Your task to perform on an android device: What's on my calendar tomorrow? Image 0: 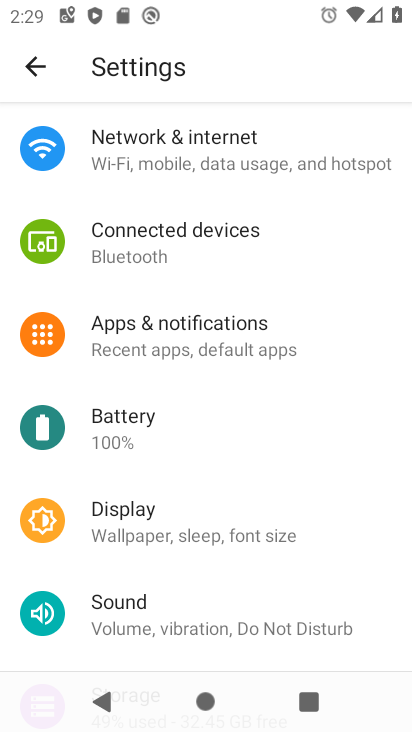
Step 0: press home button
Your task to perform on an android device: What's on my calendar tomorrow? Image 1: 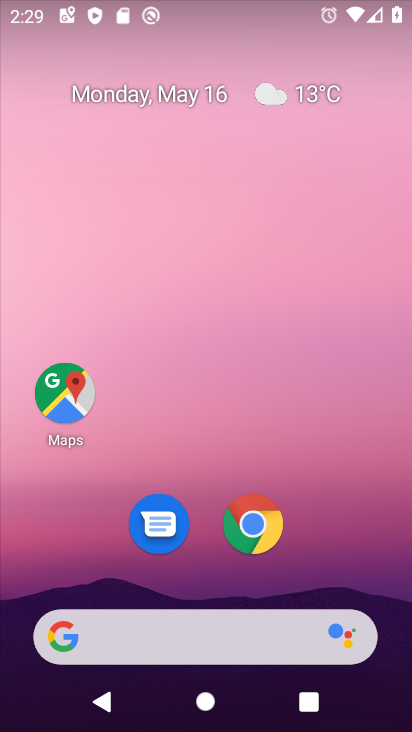
Step 1: drag from (221, 438) to (214, 29)
Your task to perform on an android device: What's on my calendar tomorrow? Image 2: 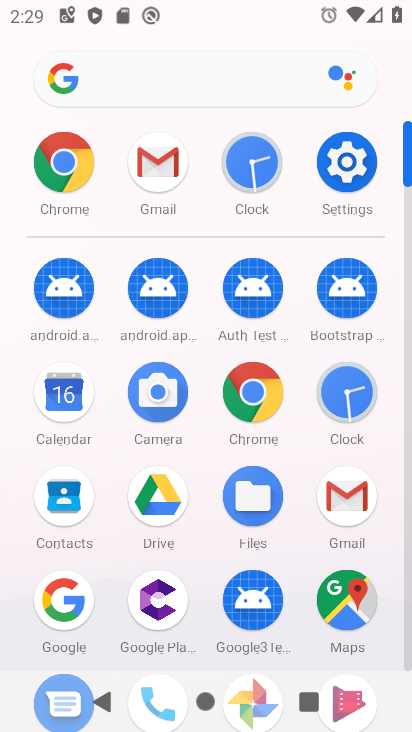
Step 2: click (61, 400)
Your task to perform on an android device: What's on my calendar tomorrow? Image 3: 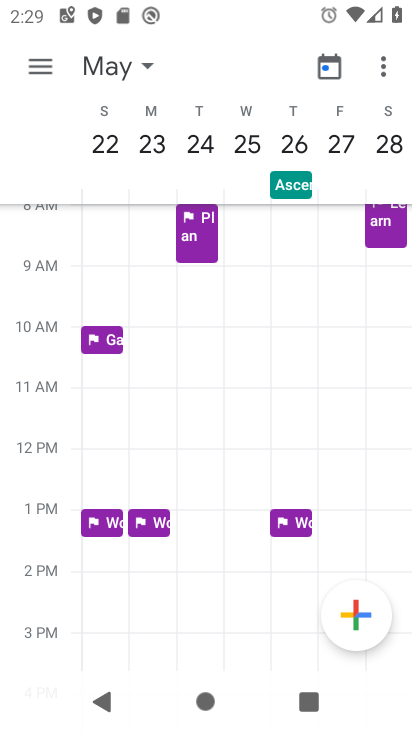
Step 3: drag from (92, 409) to (410, 449)
Your task to perform on an android device: What's on my calendar tomorrow? Image 4: 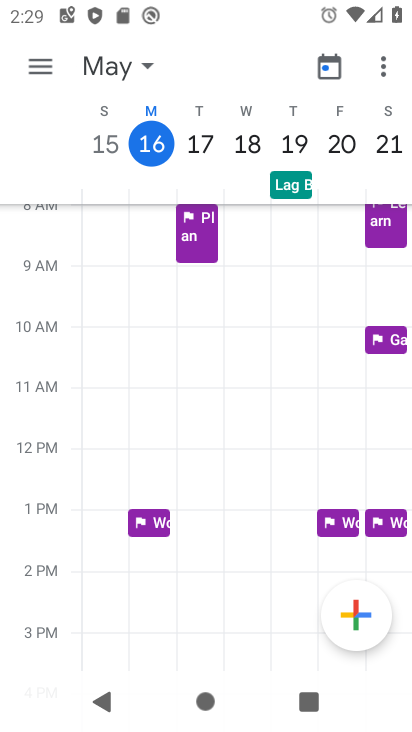
Step 4: click (195, 128)
Your task to perform on an android device: What's on my calendar tomorrow? Image 5: 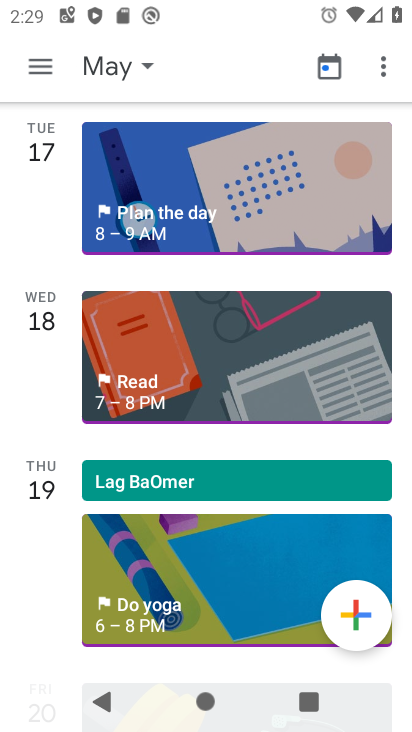
Step 5: task complete